Your task to perform on an android device: turn off sleep mode Image 0: 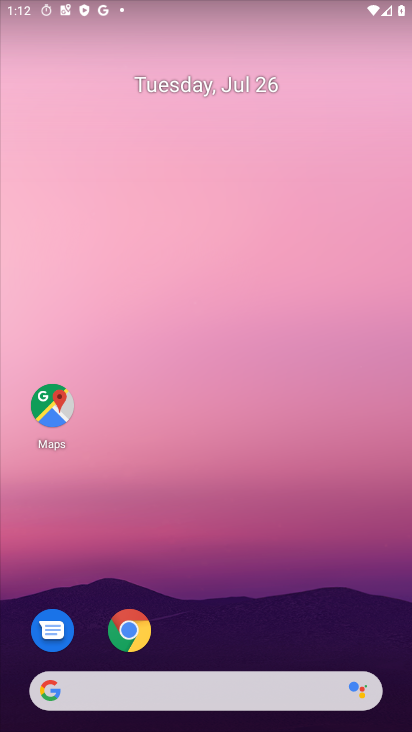
Step 0: drag from (285, 598) to (12, 205)
Your task to perform on an android device: turn off sleep mode Image 1: 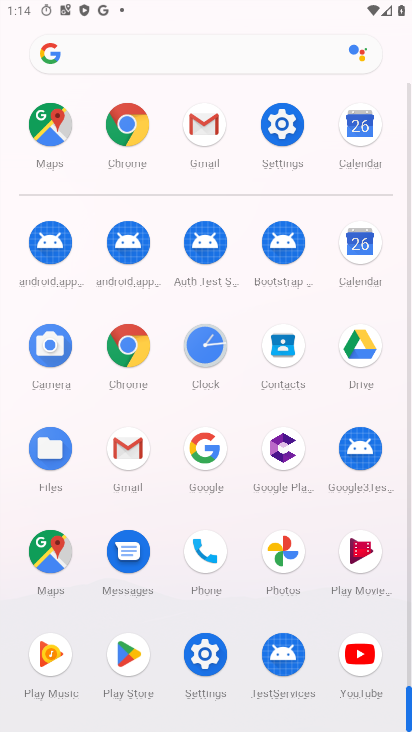
Step 1: click (279, 134)
Your task to perform on an android device: turn off sleep mode Image 2: 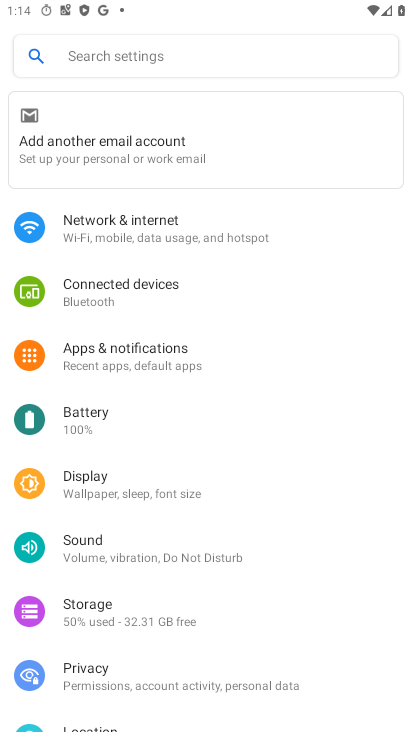
Step 2: click (111, 491)
Your task to perform on an android device: turn off sleep mode Image 3: 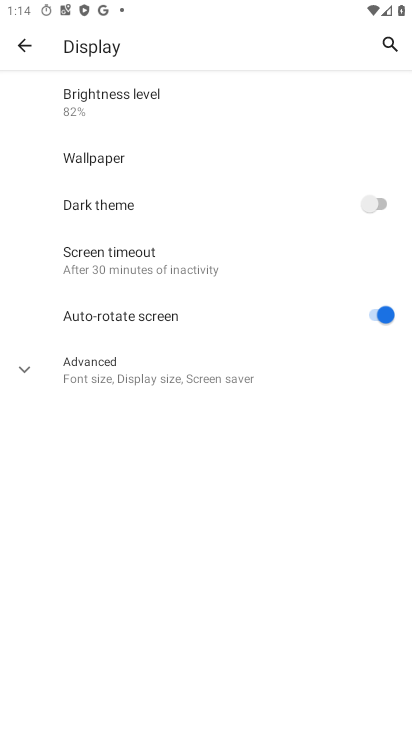
Step 3: click (111, 269)
Your task to perform on an android device: turn off sleep mode Image 4: 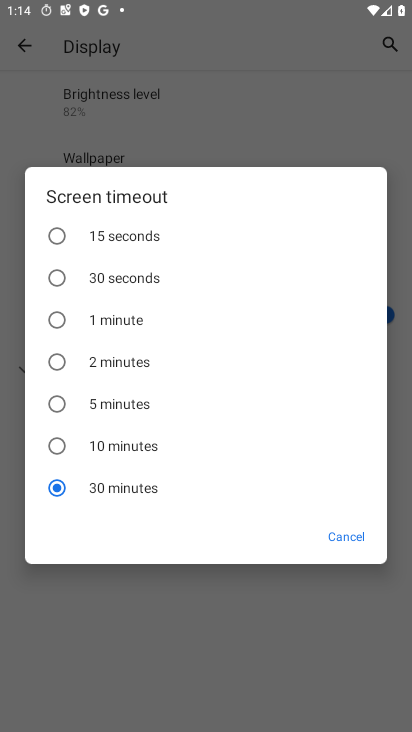
Step 4: task complete